Your task to perform on an android device: turn off notifications in google photos Image 0: 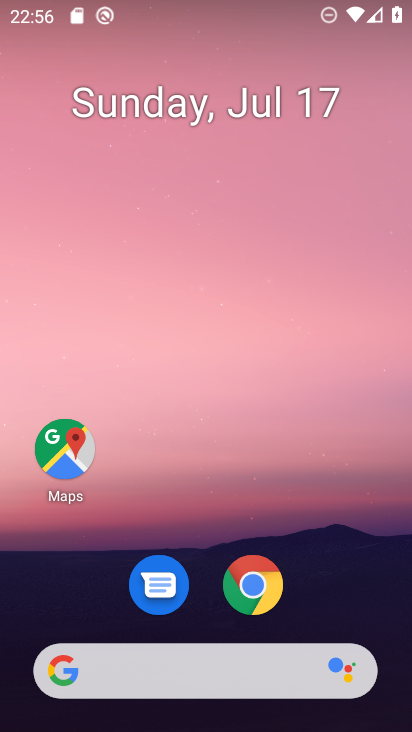
Step 0: press home button
Your task to perform on an android device: turn off notifications in google photos Image 1: 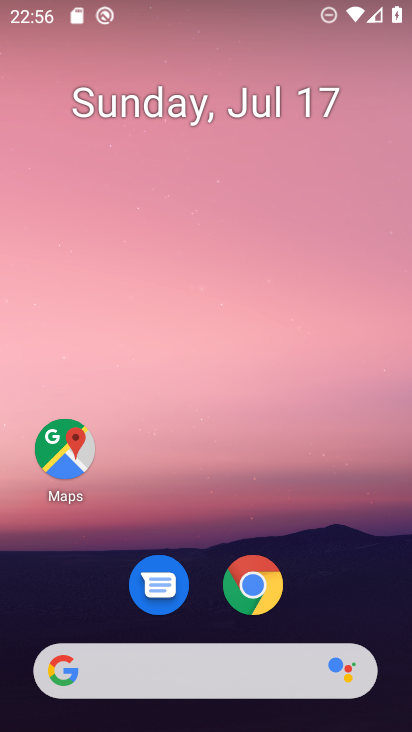
Step 1: drag from (209, 676) to (315, 129)
Your task to perform on an android device: turn off notifications in google photos Image 2: 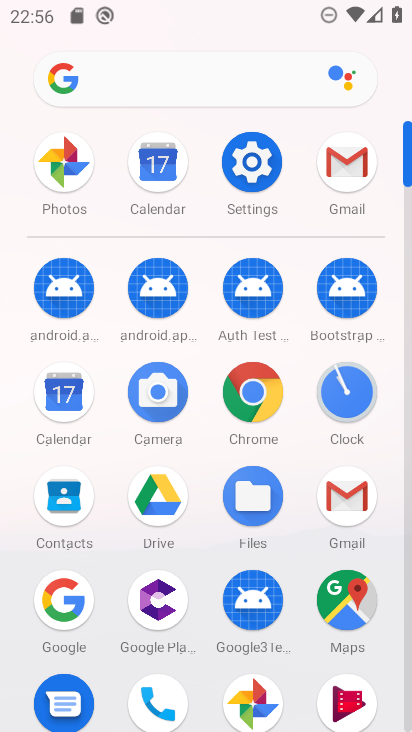
Step 2: click (254, 682)
Your task to perform on an android device: turn off notifications in google photos Image 3: 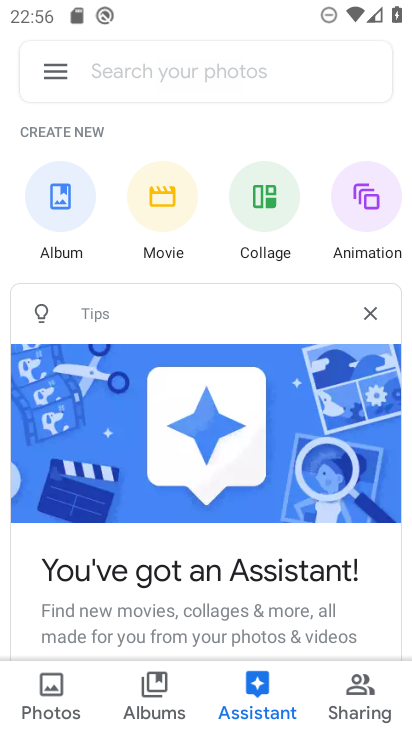
Step 3: click (51, 70)
Your task to perform on an android device: turn off notifications in google photos Image 4: 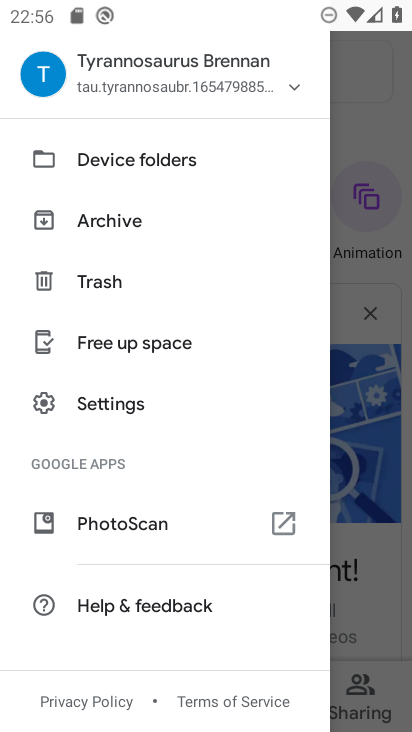
Step 4: click (133, 402)
Your task to perform on an android device: turn off notifications in google photos Image 5: 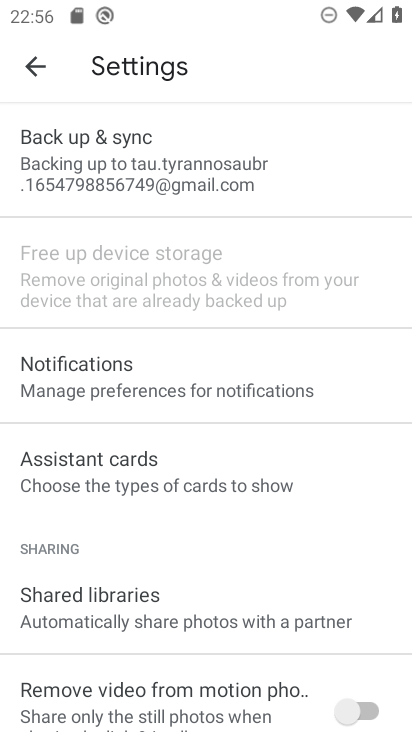
Step 5: click (136, 383)
Your task to perform on an android device: turn off notifications in google photos Image 6: 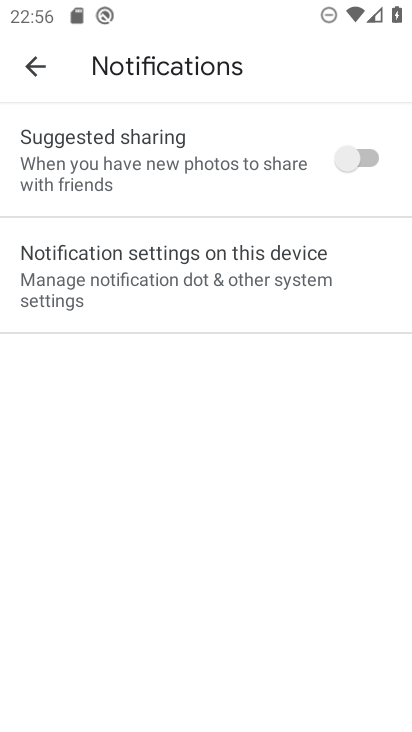
Step 6: click (168, 291)
Your task to perform on an android device: turn off notifications in google photos Image 7: 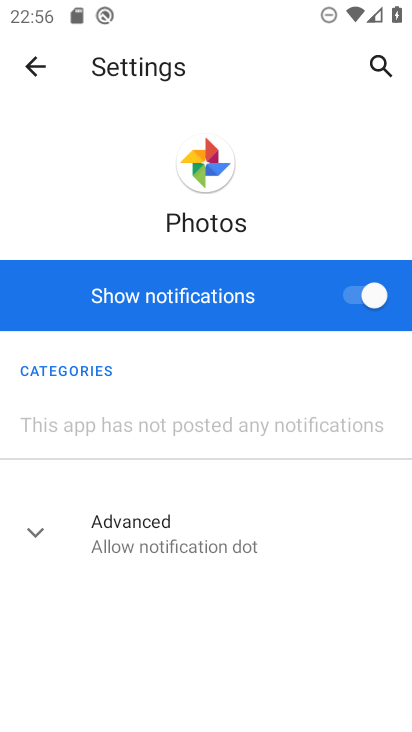
Step 7: click (358, 294)
Your task to perform on an android device: turn off notifications in google photos Image 8: 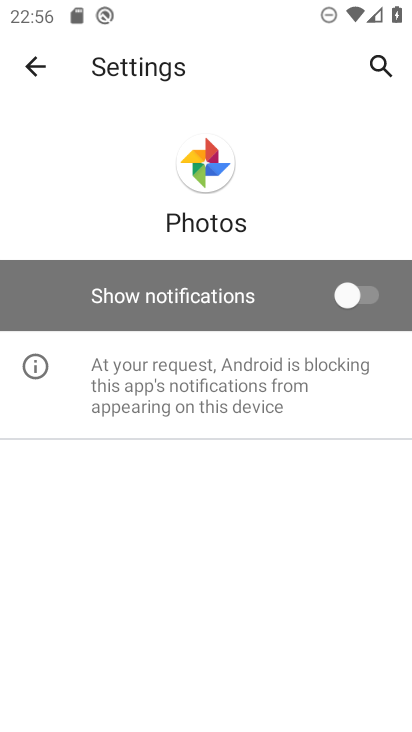
Step 8: task complete